Your task to perform on an android device: What's the weather? Image 0: 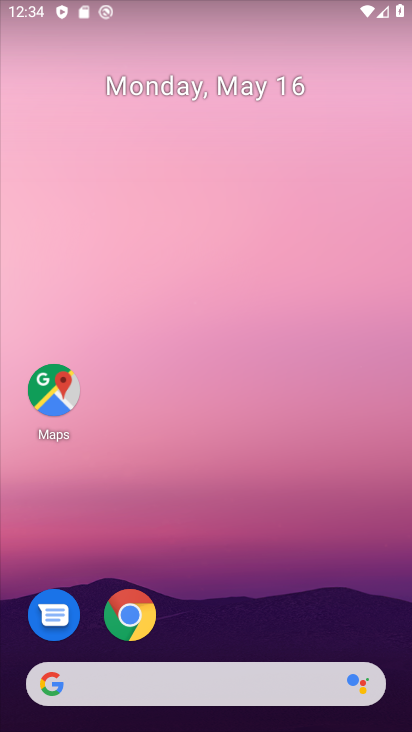
Step 0: click (144, 604)
Your task to perform on an android device: What's the weather? Image 1: 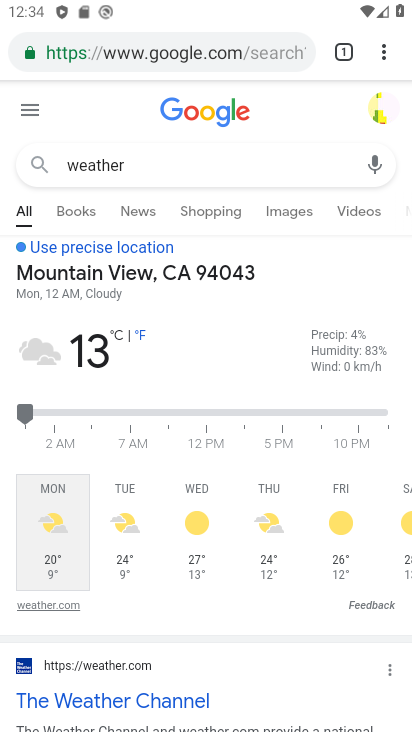
Step 1: task complete